Your task to perform on an android device: find snoozed emails in the gmail app Image 0: 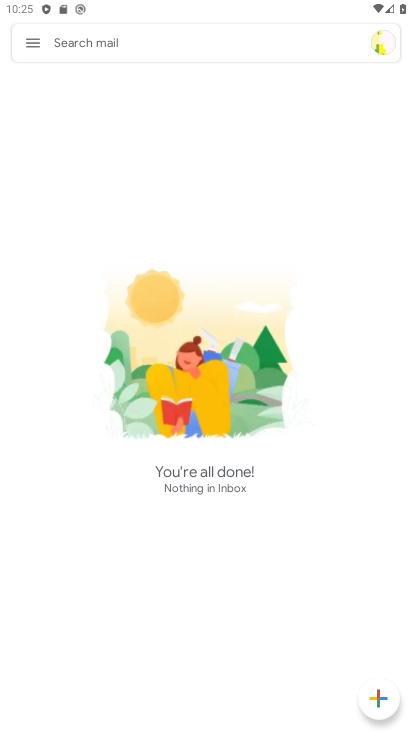
Step 0: click (394, 726)
Your task to perform on an android device: find snoozed emails in the gmail app Image 1: 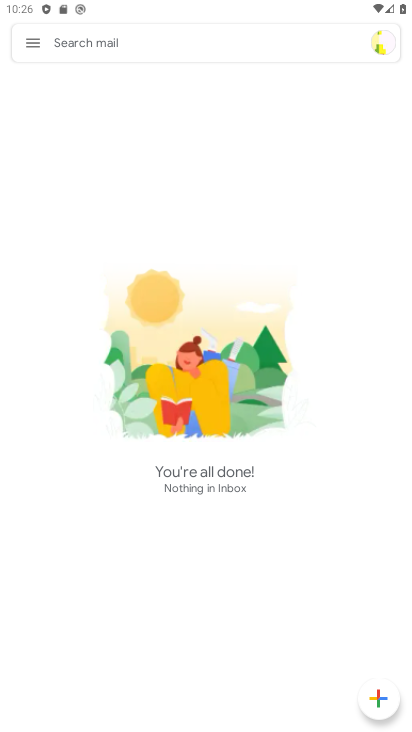
Step 1: press home button
Your task to perform on an android device: find snoozed emails in the gmail app Image 2: 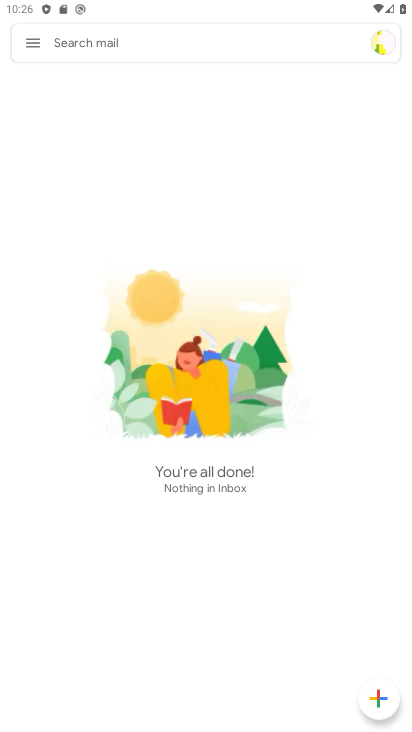
Step 2: click (367, 276)
Your task to perform on an android device: find snoozed emails in the gmail app Image 3: 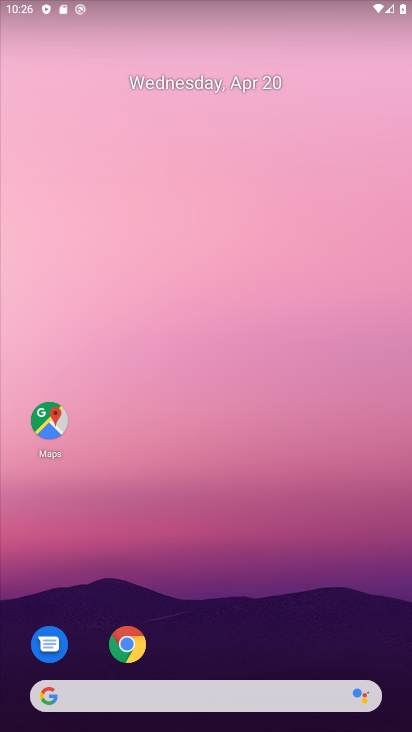
Step 3: drag from (198, 562) to (237, 78)
Your task to perform on an android device: find snoozed emails in the gmail app Image 4: 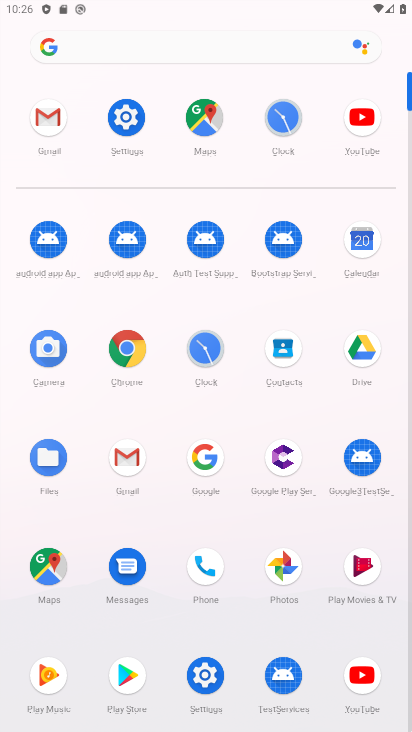
Step 4: click (130, 454)
Your task to perform on an android device: find snoozed emails in the gmail app Image 5: 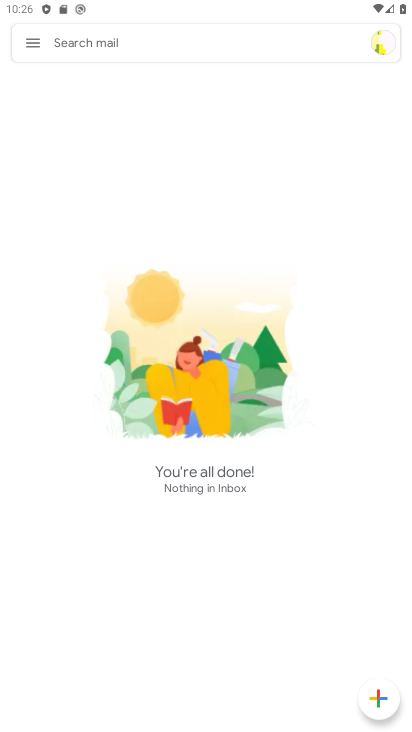
Step 5: click (33, 46)
Your task to perform on an android device: find snoozed emails in the gmail app Image 6: 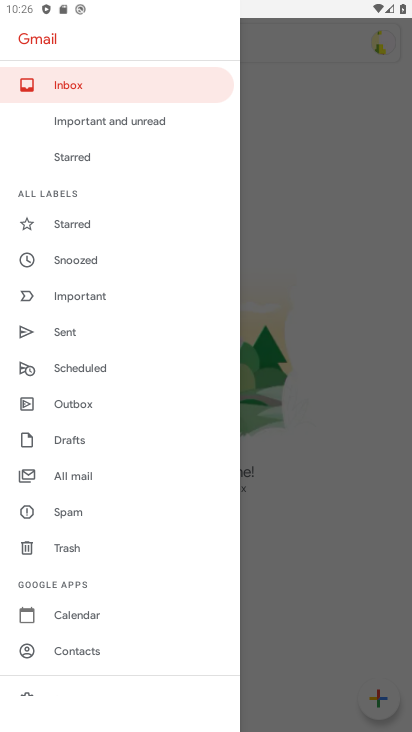
Step 6: click (100, 264)
Your task to perform on an android device: find snoozed emails in the gmail app Image 7: 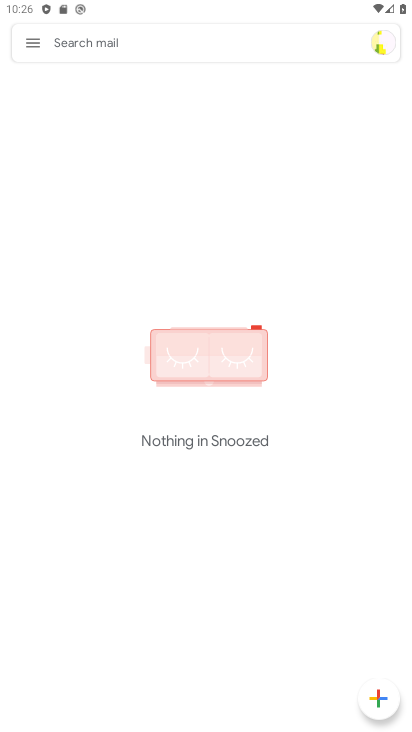
Step 7: task complete